Your task to perform on an android device: snooze an email in the gmail app Image 0: 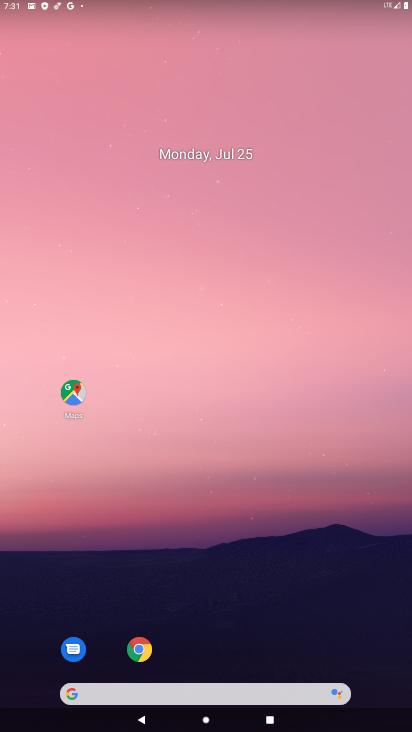
Step 0: drag from (194, 669) to (199, 192)
Your task to perform on an android device: snooze an email in the gmail app Image 1: 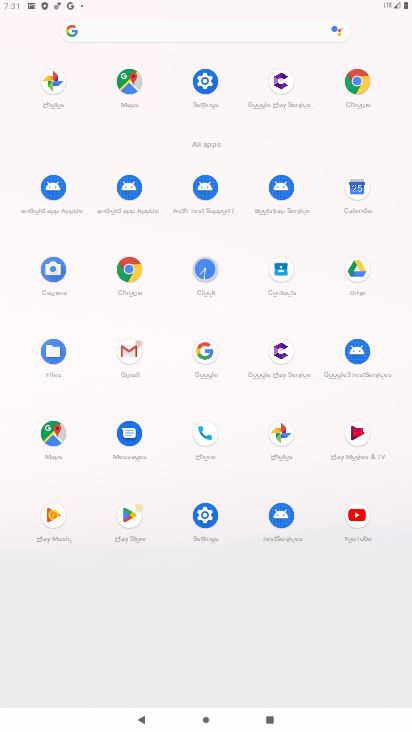
Step 1: click (127, 357)
Your task to perform on an android device: snooze an email in the gmail app Image 2: 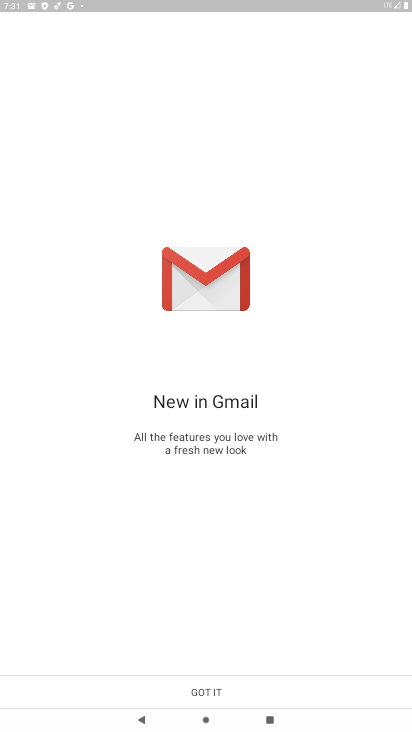
Step 2: click (196, 679)
Your task to perform on an android device: snooze an email in the gmail app Image 3: 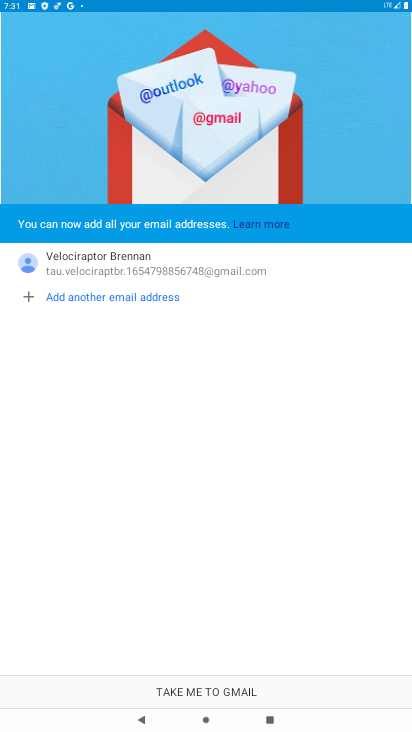
Step 3: click (196, 679)
Your task to perform on an android device: snooze an email in the gmail app Image 4: 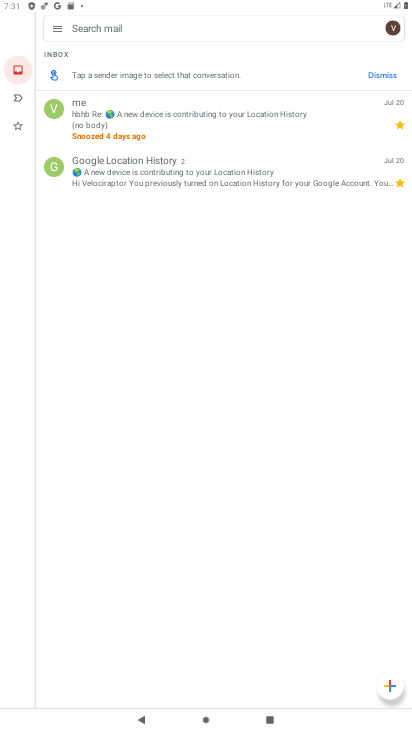
Step 4: click (249, 118)
Your task to perform on an android device: snooze an email in the gmail app Image 5: 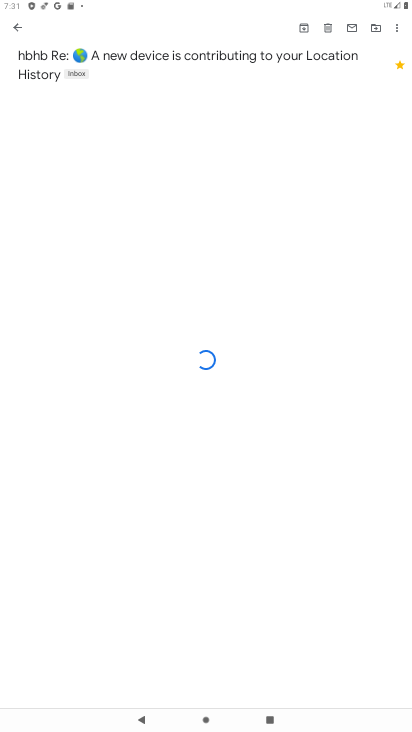
Step 5: click (396, 24)
Your task to perform on an android device: snooze an email in the gmail app Image 6: 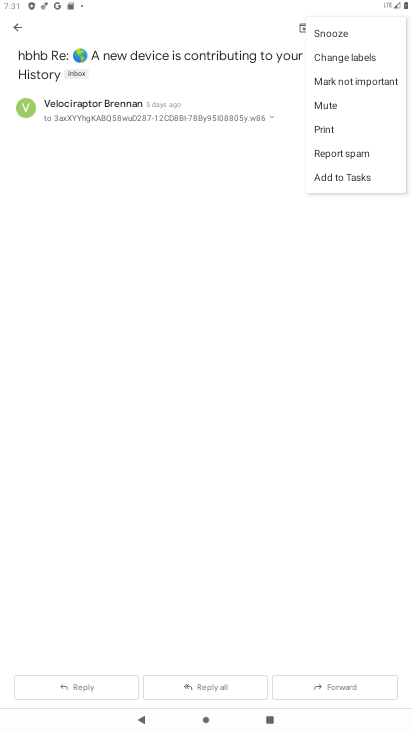
Step 6: click (324, 36)
Your task to perform on an android device: snooze an email in the gmail app Image 7: 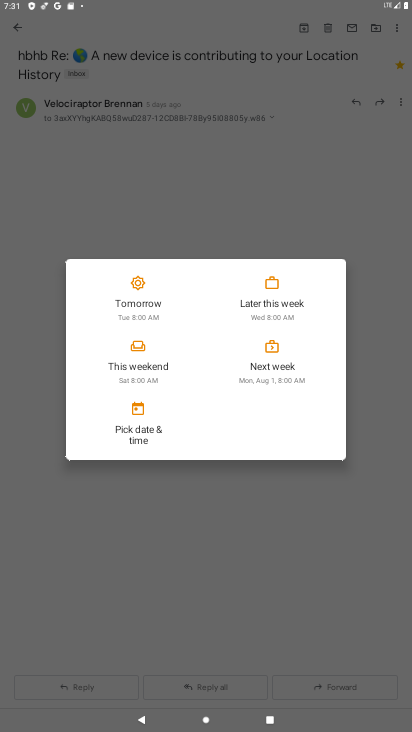
Step 7: click (264, 271)
Your task to perform on an android device: snooze an email in the gmail app Image 8: 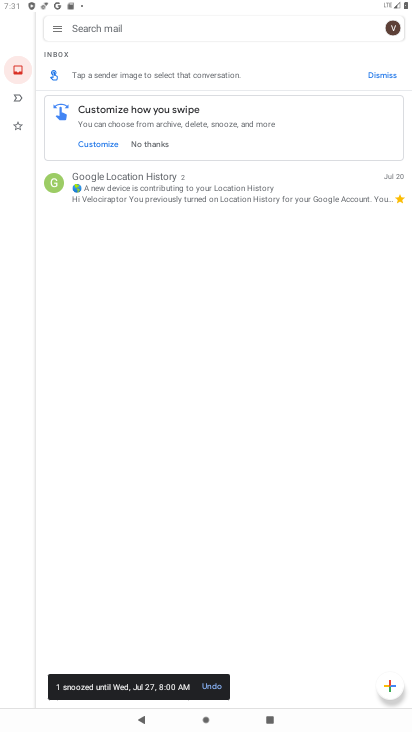
Step 8: task complete